Your task to perform on an android device: check out phone information Image 0: 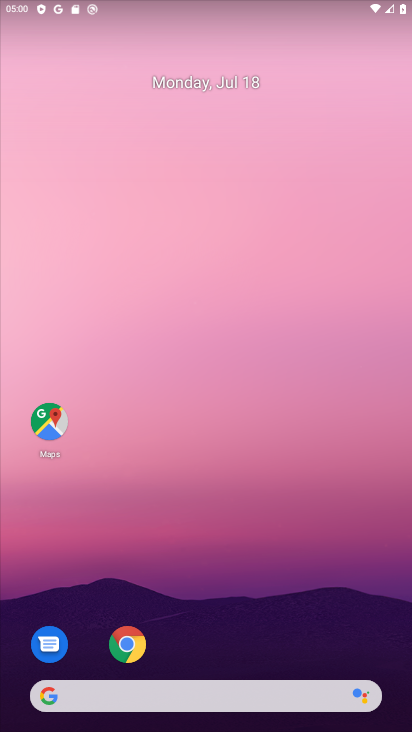
Step 0: press home button
Your task to perform on an android device: check out phone information Image 1: 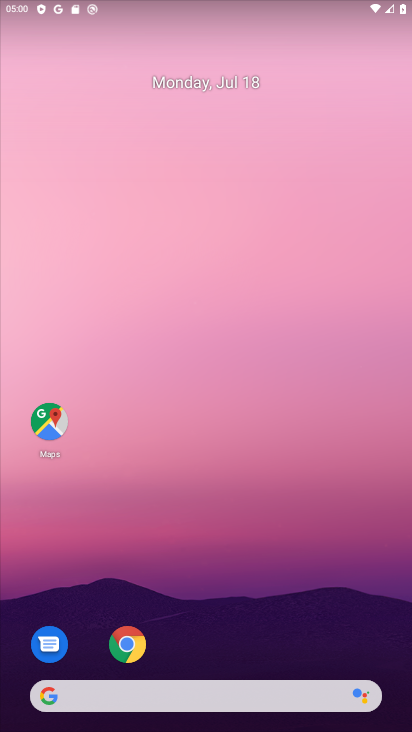
Step 1: click (407, 608)
Your task to perform on an android device: check out phone information Image 2: 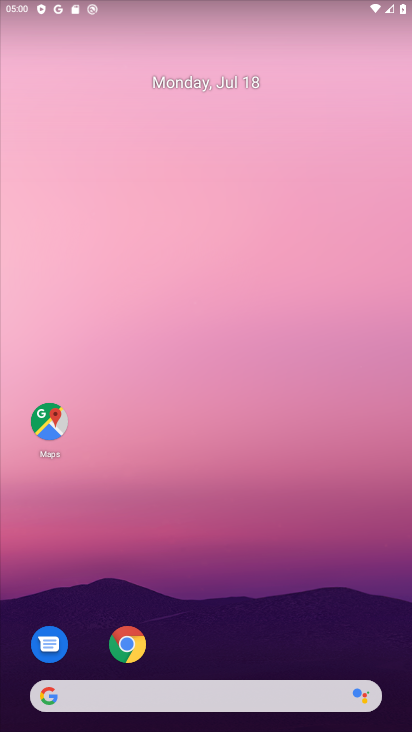
Step 2: drag from (232, 545) to (288, 55)
Your task to perform on an android device: check out phone information Image 3: 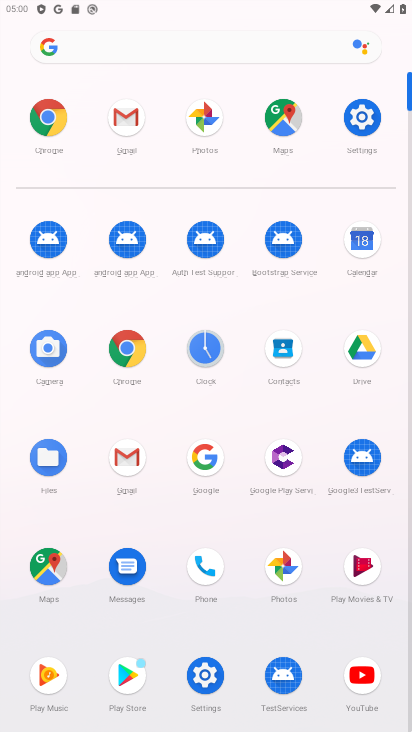
Step 3: click (353, 136)
Your task to perform on an android device: check out phone information Image 4: 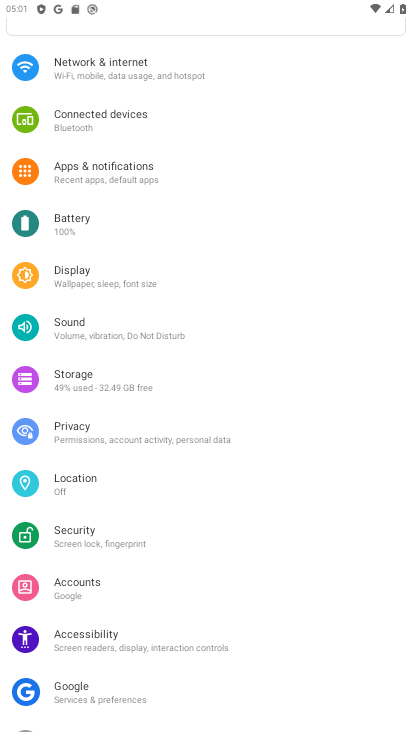
Step 4: drag from (278, 685) to (289, 105)
Your task to perform on an android device: check out phone information Image 5: 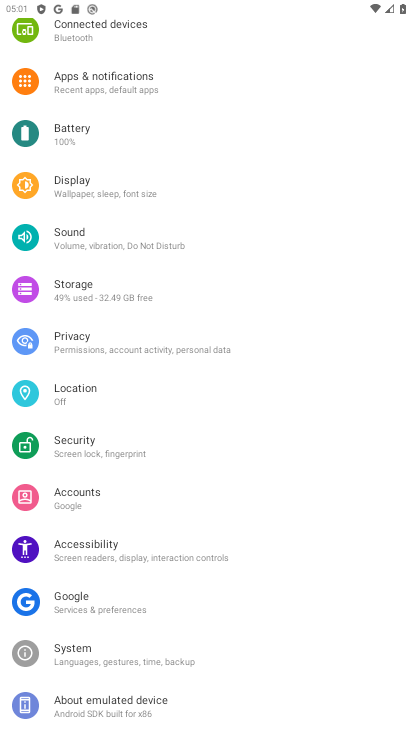
Step 5: click (78, 720)
Your task to perform on an android device: check out phone information Image 6: 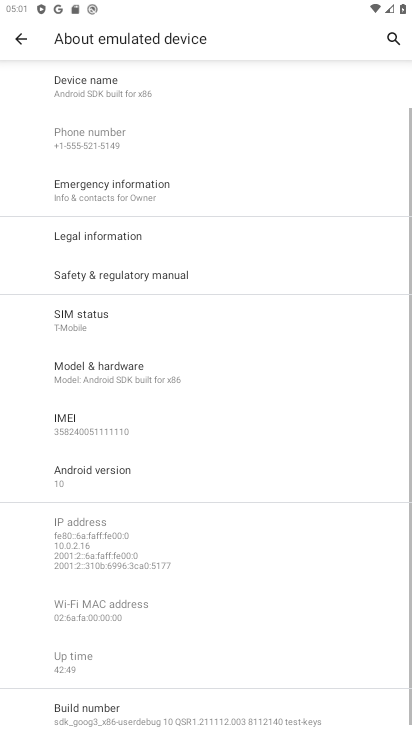
Step 6: task complete